Your task to perform on an android device: turn vacation reply on in the gmail app Image 0: 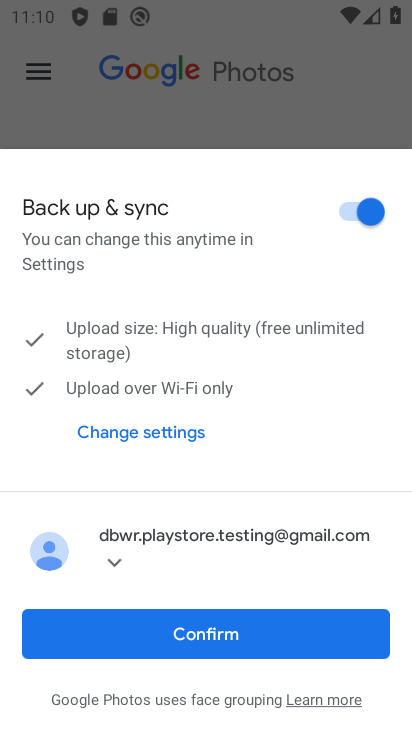
Step 0: press home button
Your task to perform on an android device: turn vacation reply on in the gmail app Image 1: 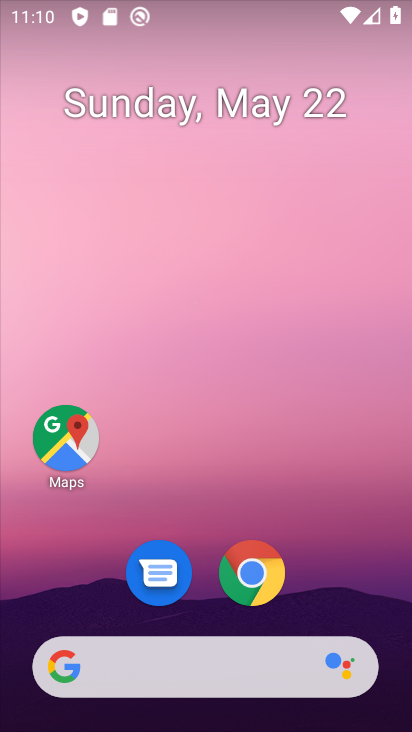
Step 1: drag from (377, 600) to (357, 179)
Your task to perform on an android device: turn vacation reply on in the gmail app Image 2: 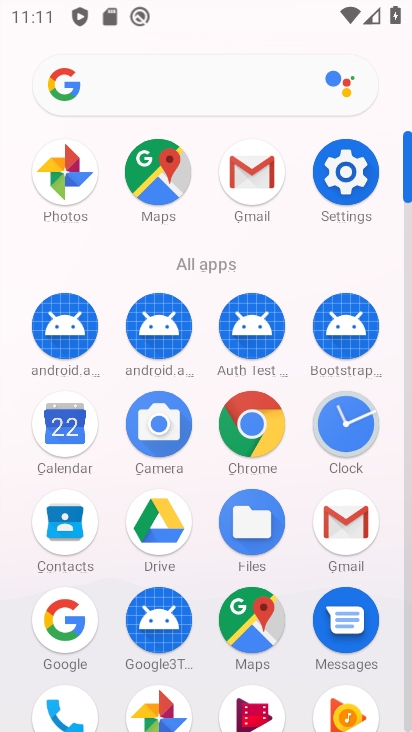
Step 2: click (335, 537)
Your task to perform on an android device: turn vacation reply on in the gmail app Image 3: 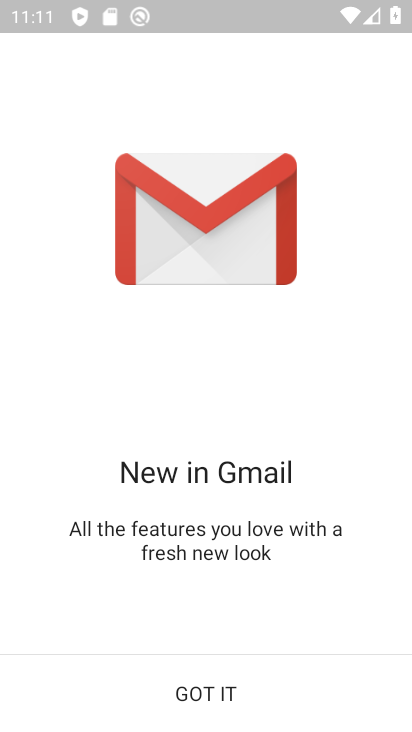
Step 3: click (221, 695)
Your task to perform on an android device: turn vacation reply on in the gmail app Image 4: 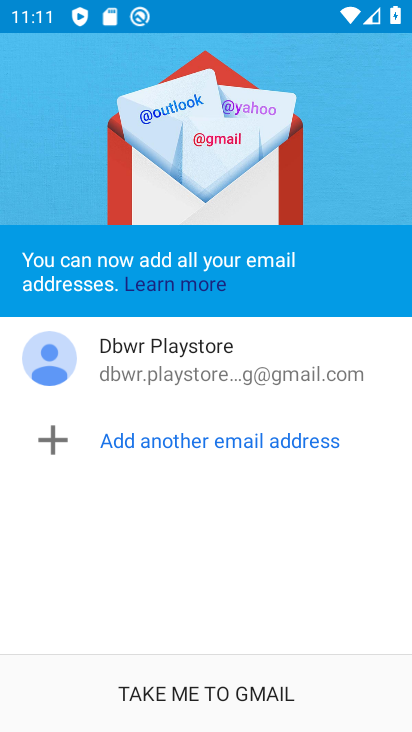
Step 4: click (238, 693)
Your task to perform on an android device: turn vacation reply on in the gmail app Image 5: 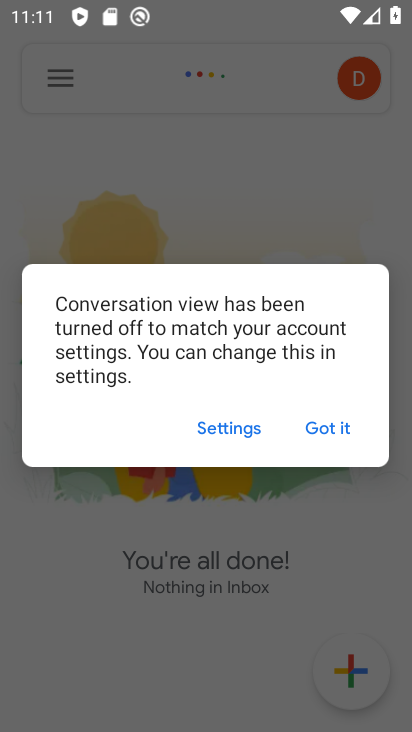
Step 5: click (321, 430)
Your task to perform on an android device: turn vacation reply on in the gmail app Image 6: 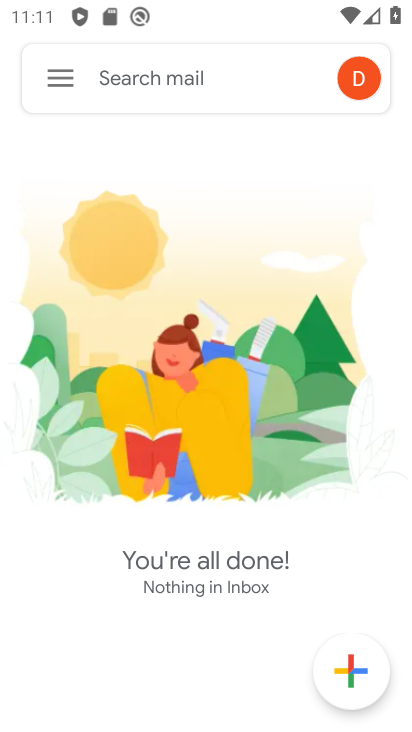
Step 6: click (62, 83)
Your task to perform on an android device: turn vacation reply on in the gmail app Image 7: 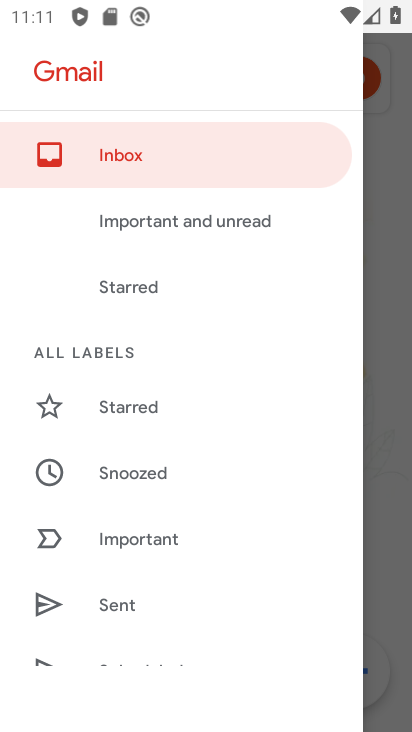
Step 7: drag from (268, 595) to (261, 375)
Your task to perform on an android device: turn vacation reply on in the gmail app Image 8: 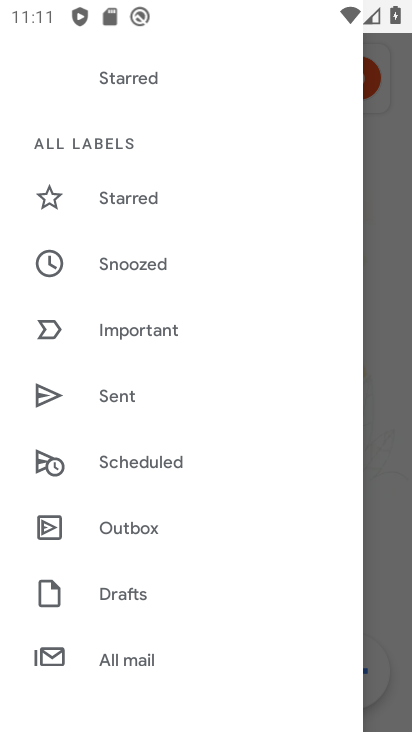
Step 8: drag from (263, 602) to (255, 441)
Your task to perform on an android device: turn vacation reply on in the gmail app Image 9: 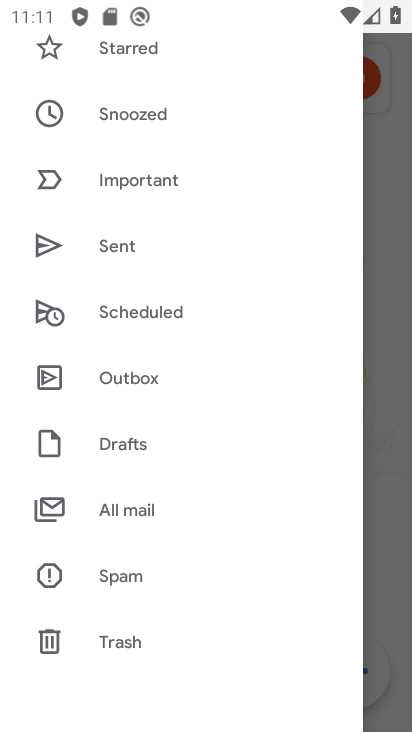
Step 9: drag from (233, 610) to (231, 400)
Your task to perform on an android device: turn vacation reply on in the gmail app Image 10: 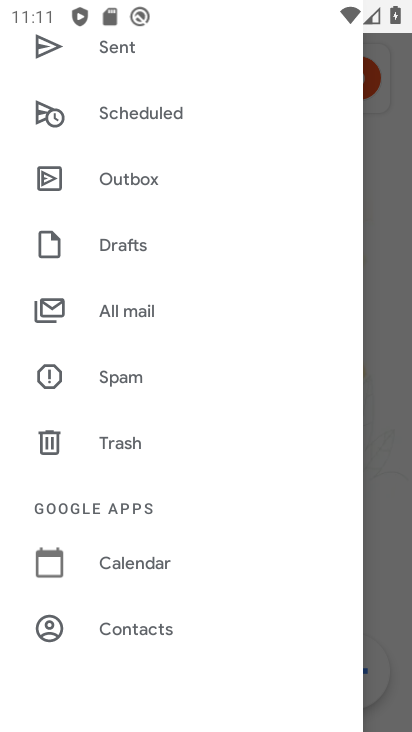
Step 10: drag from (233, 634) to (217, 412)
Your task to perform on an android device: turn vacation reply on in the gmail app Image 11: 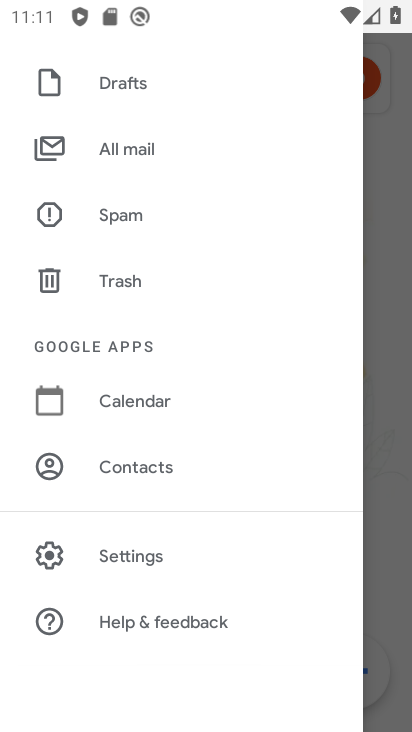
Step 11: drag from (233, 627) to (234, 444)
Your task to perform on an android device: turn vacation reply on in the gmail app Image 12: 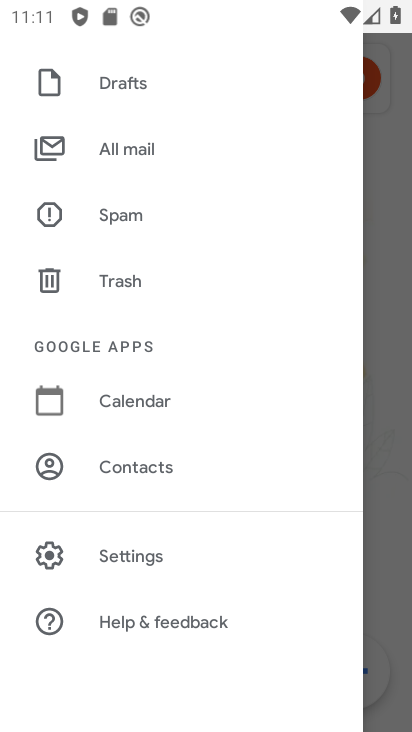
Step 12: click (120, 559)
Your task to perform on an android device: turn vacation reply on in the gmail app Image 13: 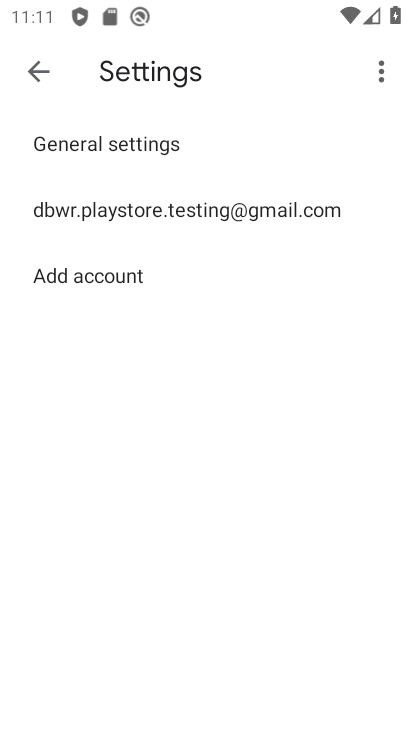
Step 13: click (178, 211)
Your task to perform on an android device: turn vacation reply on in the gmail app Image 14: 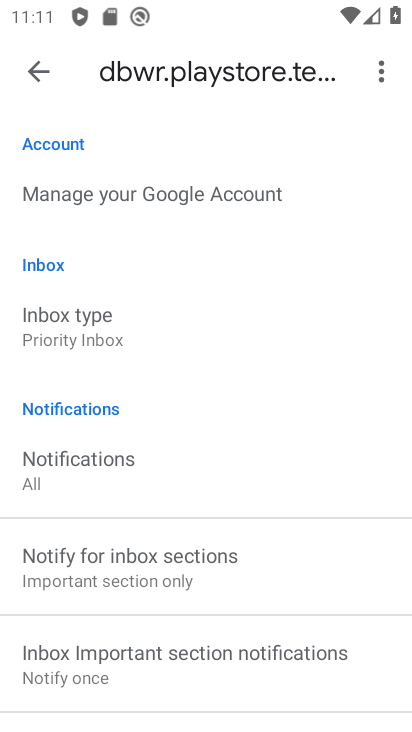
Step 14: drag from (242, 475) to (227, 327)
Your task to perform on an android device: turn vacation reply on in the gmail app Image 15: 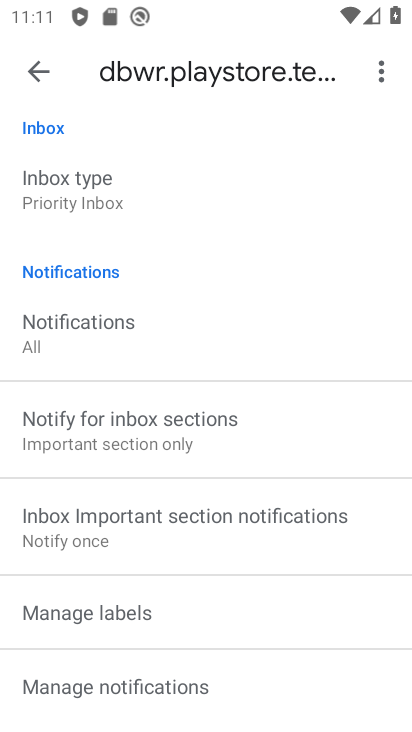
Step 15: drag from (265, 573) to (257, 319)
Your task to perform on an android device: turn vacation reply on in the gmail app Image 16: 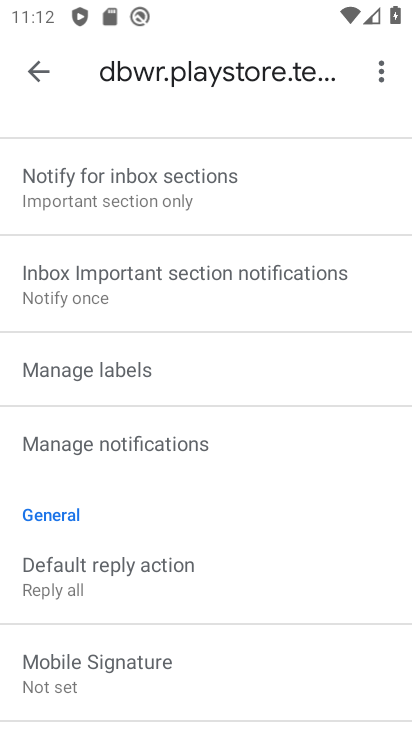
Step 16: drag from (284, 595) to (264, 456)
Your task to perform on an android device: turn vacation reply on in the gmail app Image 17: 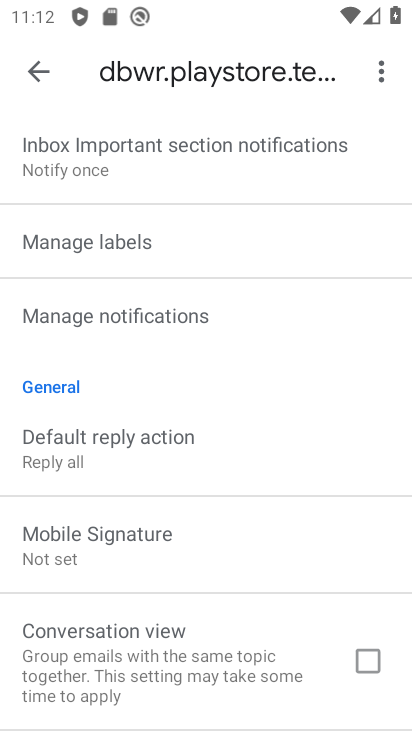
Step 17: drag from (262, 606) to (243, 407)
Your task to perform on an android device: turn vacation reply on in the gmail app Image 18: 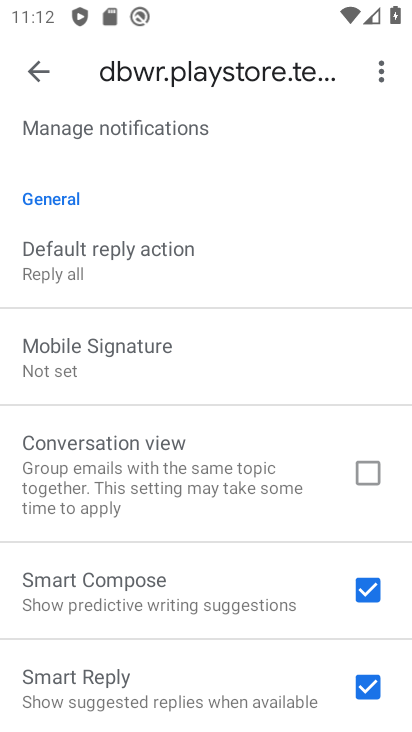
Step 18: drag from (260, 613) to (237, 438)
Your task to perform on an android device: turn vacation reply on in the gmail app Image 19: 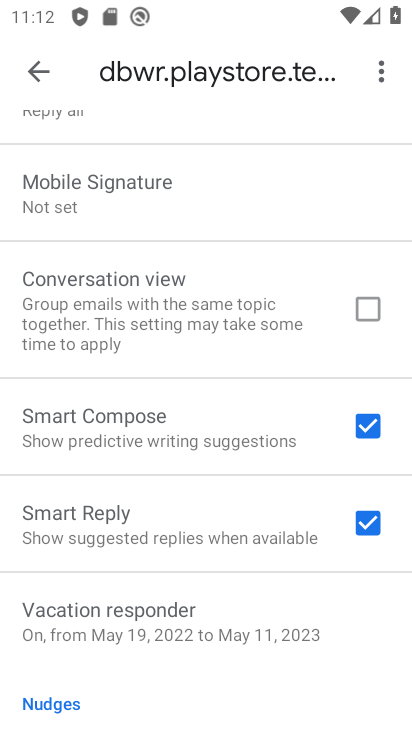
Step 19: drag from (220, 625) to (190, 456)
Your task to perform on an android device: turn vacation reply on in the gmail app Image 20: 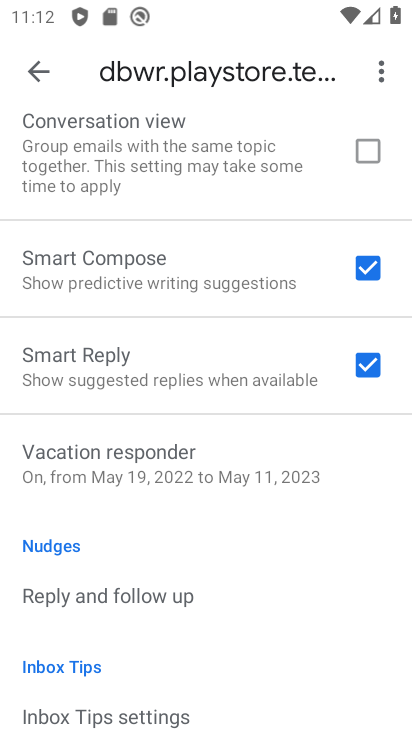
Step 20: click (114, 468)
Your task to perform on an android device: turn vacation reply on in the gmail app Image 21: 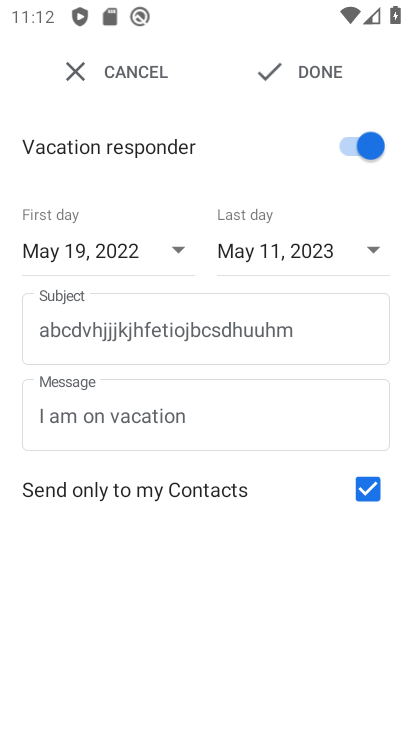
Step 21: task complete